Your task to perform on an android device: Open eBay Image 0: 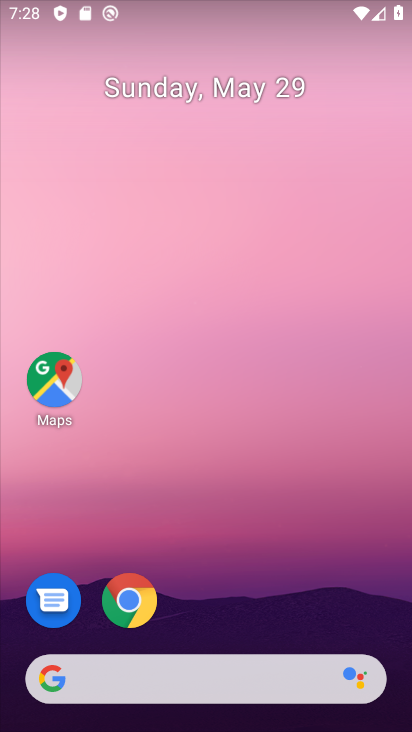
Step 0: click (141, 596)
Your task to perform on an android device: Open eBay Image 1: 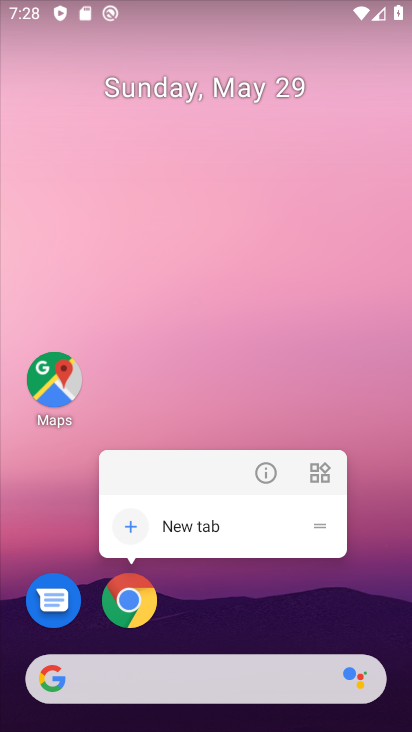
Step 1: click (137, 595)
Your task to perform on an android device: Open eBay Image 2: 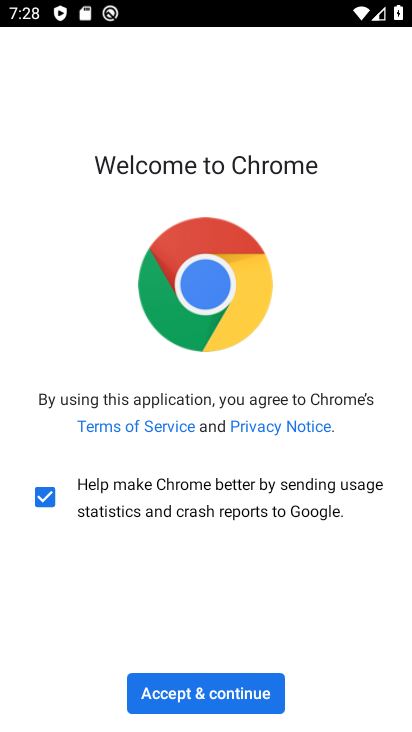
Step 2: click (219, 682)
Your task to perform on an android device: Open eBay Image 3: 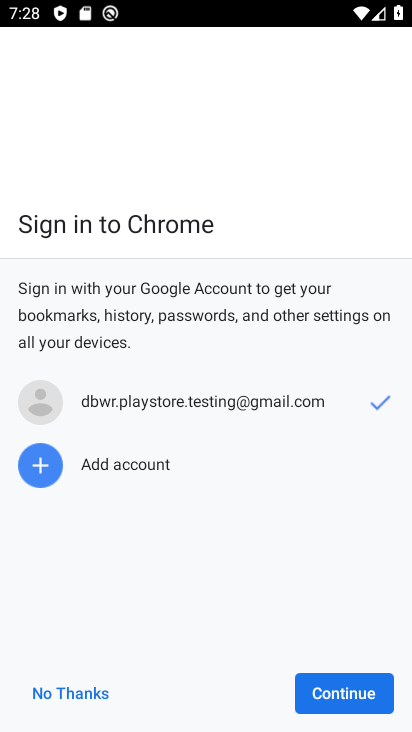
Step 3: click (368, 699)
Your task to perform on an android device: Open eBay Image 4: 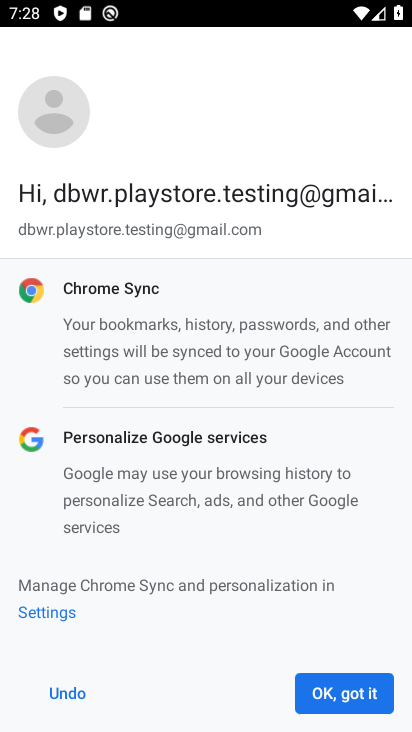
Step 4: click (367, 701)
Your task to perform on an android device: Open eBay Image 5: 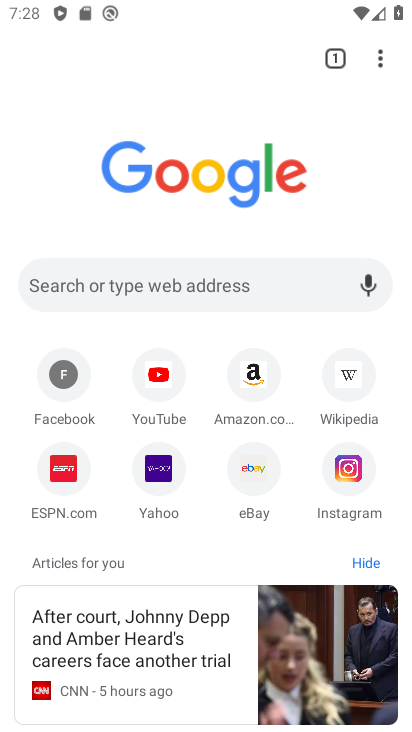
Step 5: click (267, 475)
Your task to perform on an android device: Open eBay Image 6: 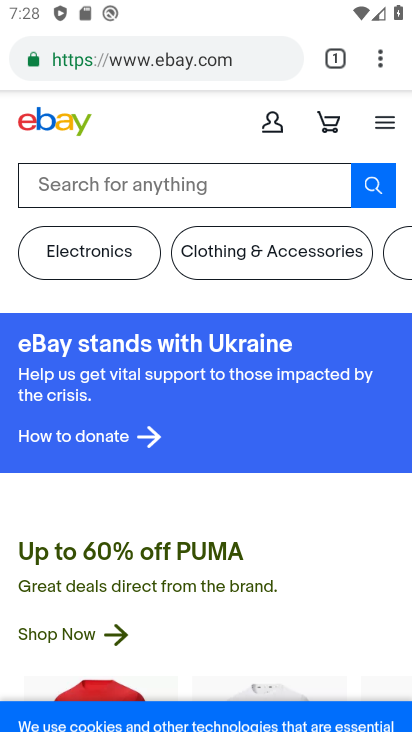
Step 6: task complete